Your task to perform on an android device: Do I have any events today? Image 0: 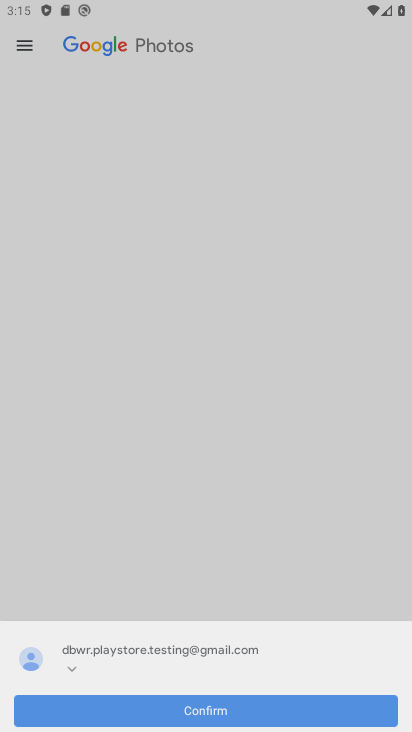
Step 0: press back button
Your task to perform on an android device: Do I have any events today? Image 1: 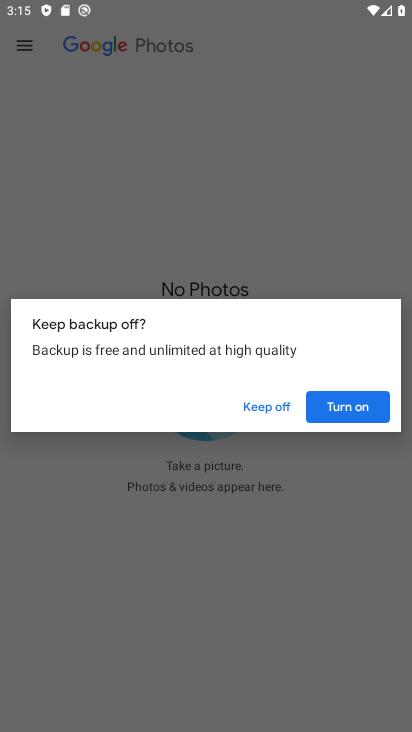
Step 1: click (358, 402)
Your task to perform on an android device: Do I have any events today? Image 2: 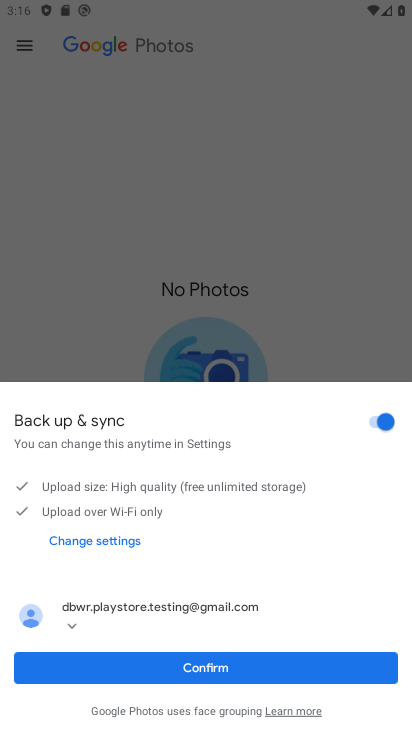
Step 2: click (213, 671)
Your task to perform on an android device: Do I have any events today? Image 3: 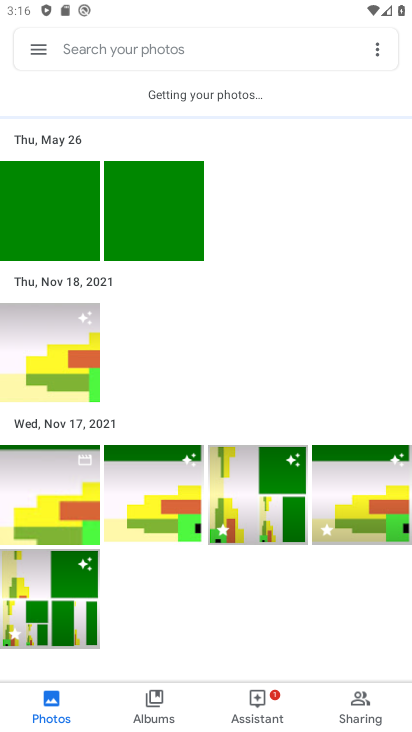
Step 3: press home button
Your task to perform on an android device: Do I have any events today? Image 4: 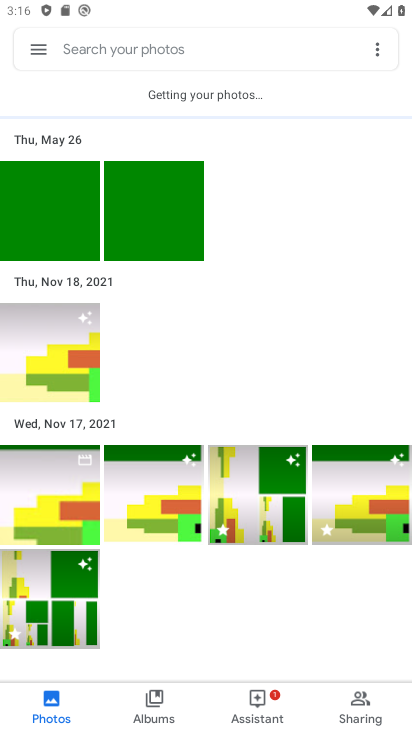
Step 4: press home button
Your task to perform on an android device: Do I have any events today? Image 5: 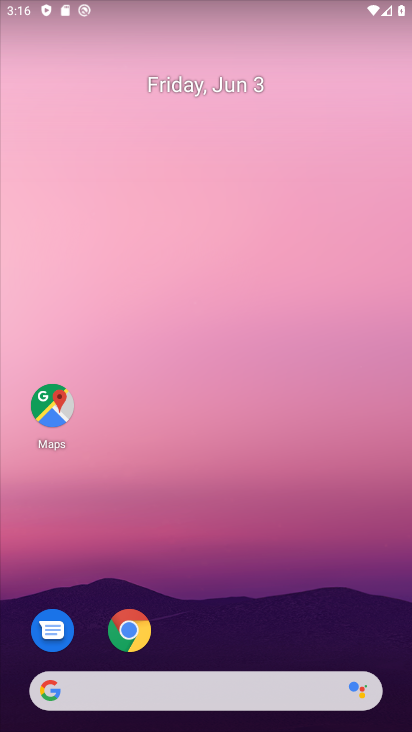
Step 5: drag from (215, 712) to (206, 162)
Your task to perform on an android device: Do I have any events today? Image 6: 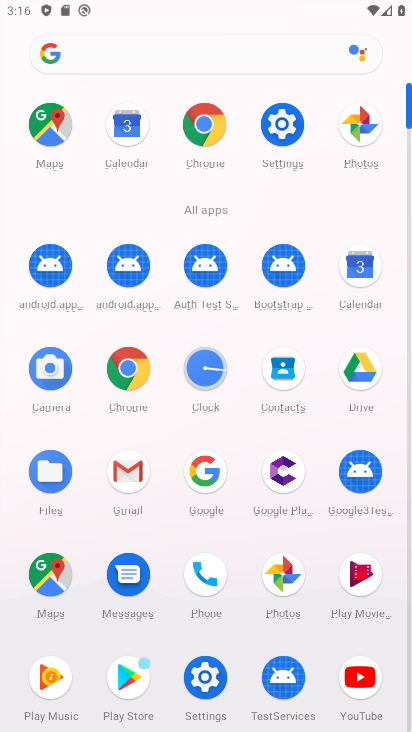
Step 6: click (353, 286)
Your task to perform on an android device: Do I have any events today? Image 7: 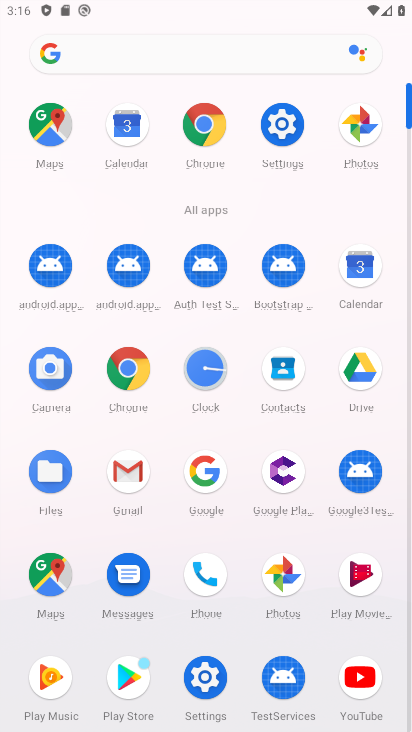
Step 7: click (360, 261)
Your task to perform on an android device: Do I have any events today? Image 8: 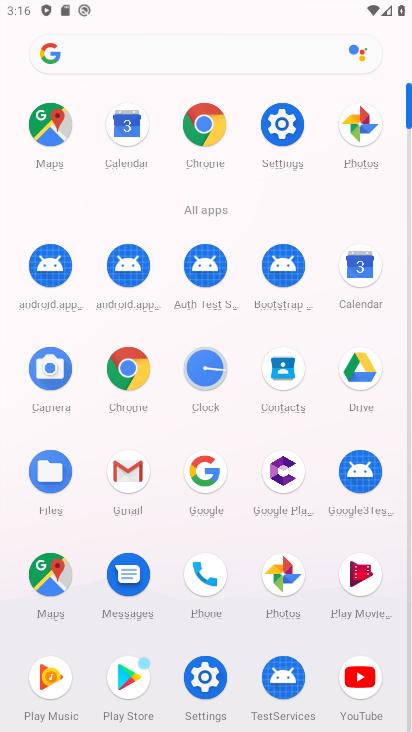
Step 8: click (360, 261)
Your task to perform on an android device: Do I have any events today? Image 9: 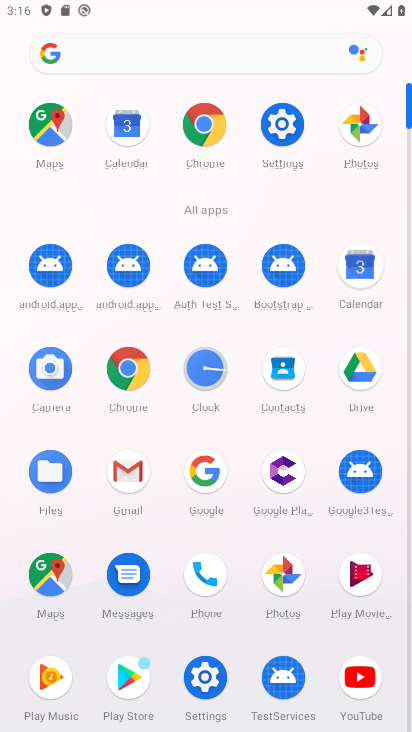
Step 9: click (360, 261)
Your task to perform on an android device: Do I have any events today? Image 10: 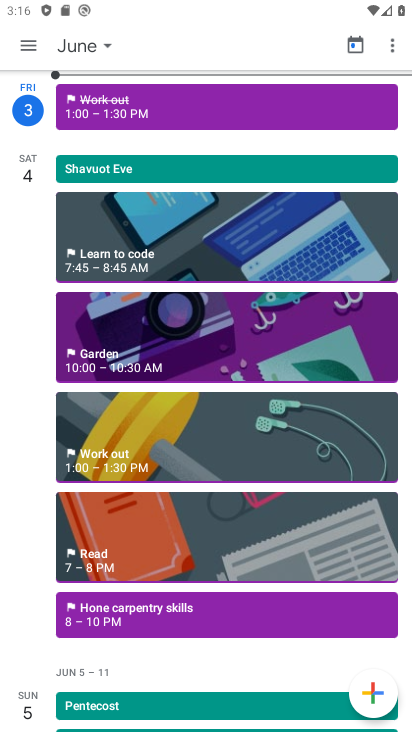
Step 10: click (109, 46)
Your task to perform on an android device: Do I have any events today? Image 11: 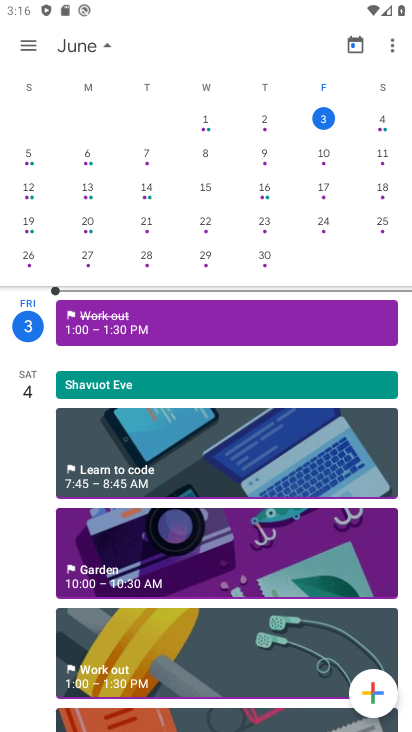
Step 11: click (125, 313)
Your task to perform on an android device: Do I have any events today? Image 12: 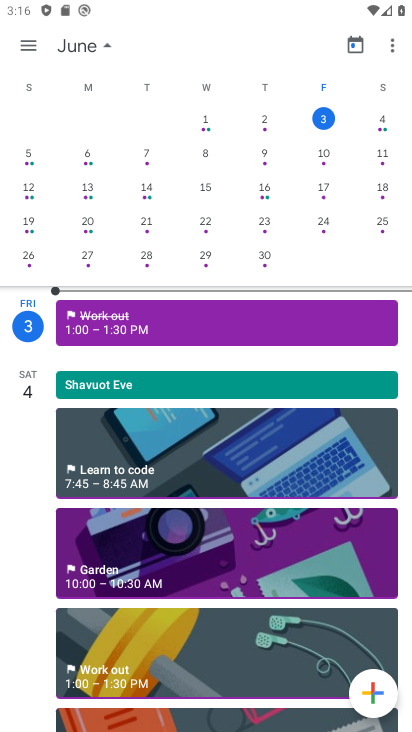
Step 12: click (125, 313)
Your task to perform on an android device: Do I have any events today? Image 13: 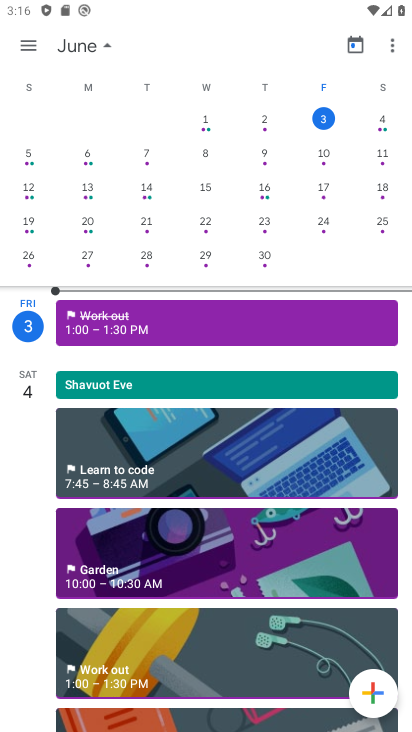
Step 13: task complete